Your task to perform on an android device: toggle javascript in the chrome app Image 0: 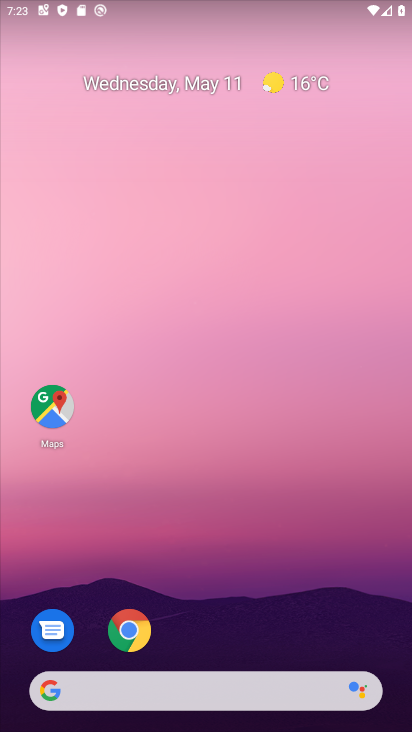
Step 0: drag from (293, 562) to (340, 224)
Your task to perform on an android device: toggle javascript in the chrome app Image 1: 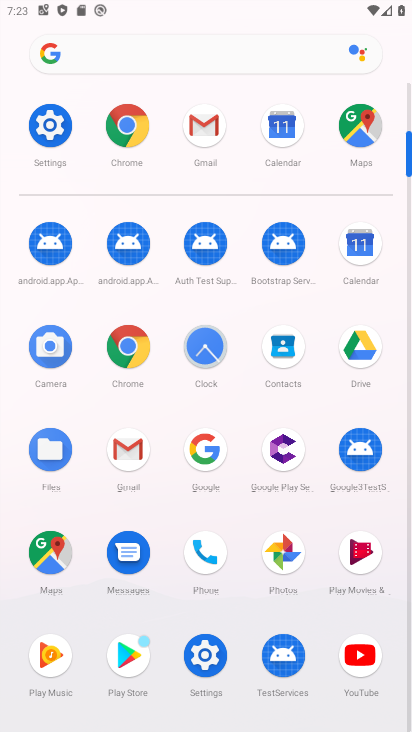
Step 1: click (125, 132)
Your task to perform on an android device: toggle javascript in the chrome app Image 2: 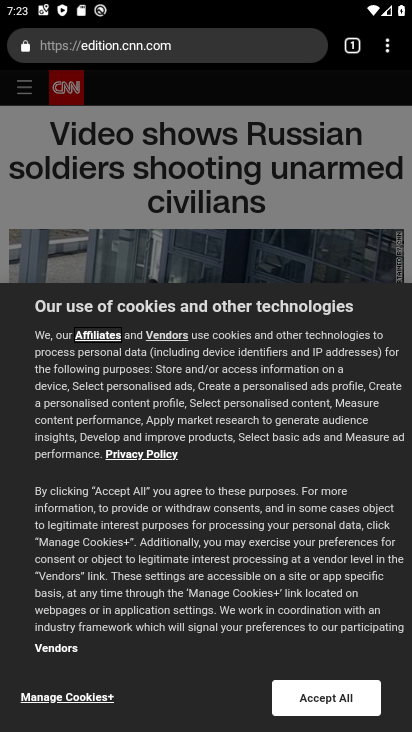
Step 2: drag from (387, 43) to (242, 518)
Your task to perform on an android device: toggle javascript in the chrome app Image 3: 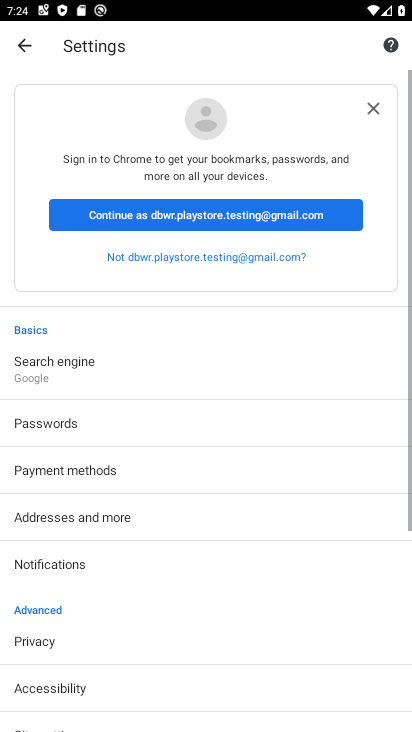
Step 3: drag from (113, 590) to (185, 126)
Your task to perform on an android device: toggle javascript in the chrome app Image 4: 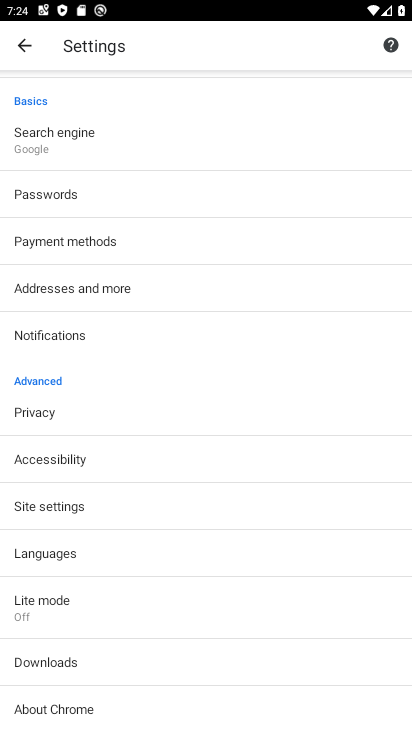
Step 4: click (95, 509)
Your task to perform on an android device: toggle javascript in the chrome app Image 5: 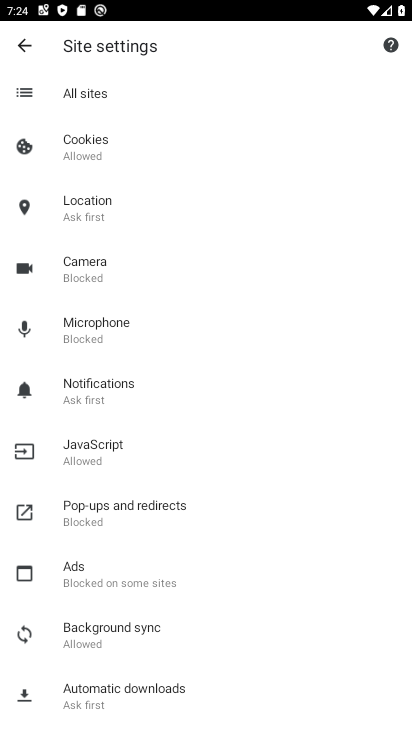
Step 5: click (79, 456)
Your task to perform on an android device: toggle javascript in the chrome app Image 6: 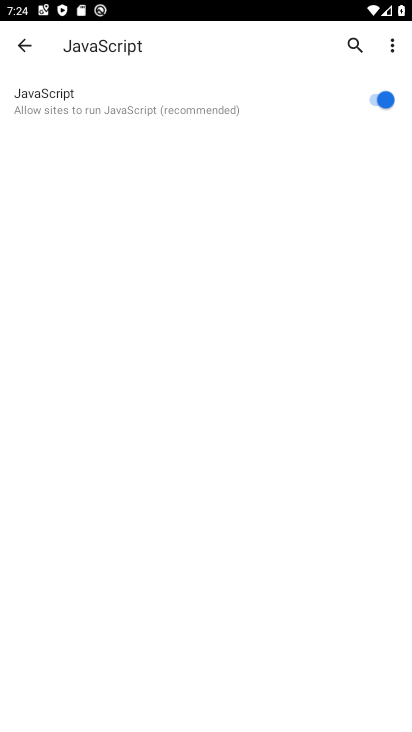
Step 6: click (376, 101)
Your task to perform on an android device: toggle javascript in the chrome app Image 7: 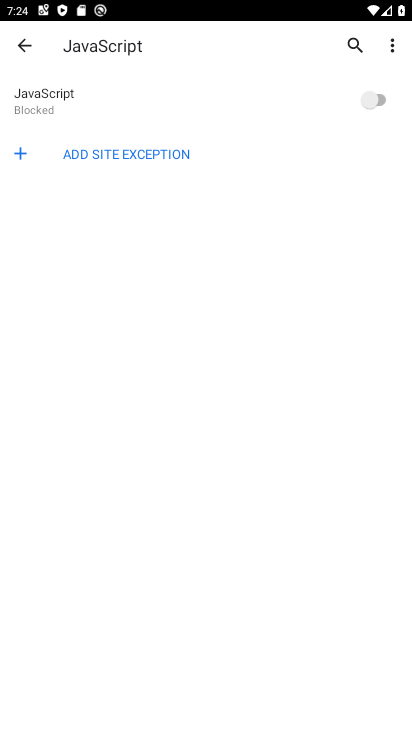
Step 7: task complete